Your task to perform on an android device: Open battery settings Image 0: 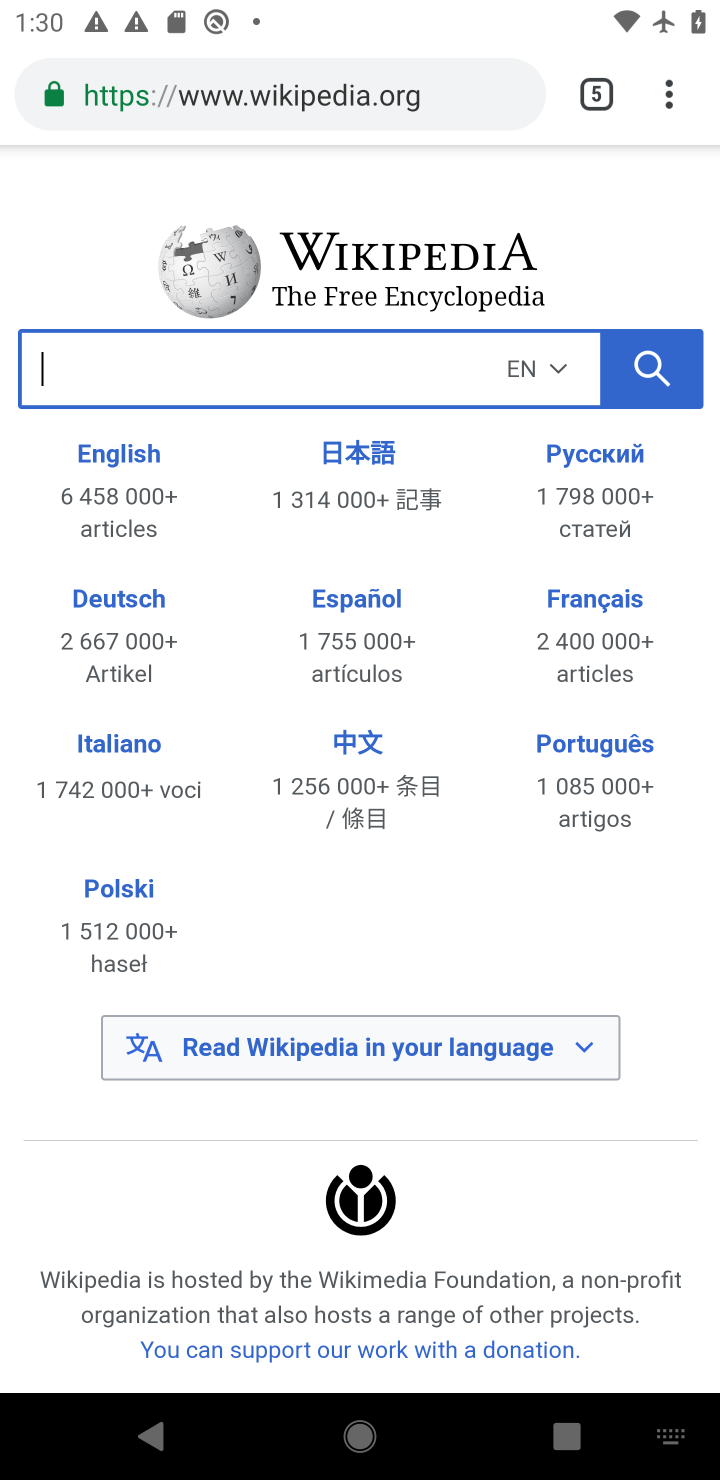
Step 0: press home button
Your task to perform on an android device: Open battery settings Image 1: 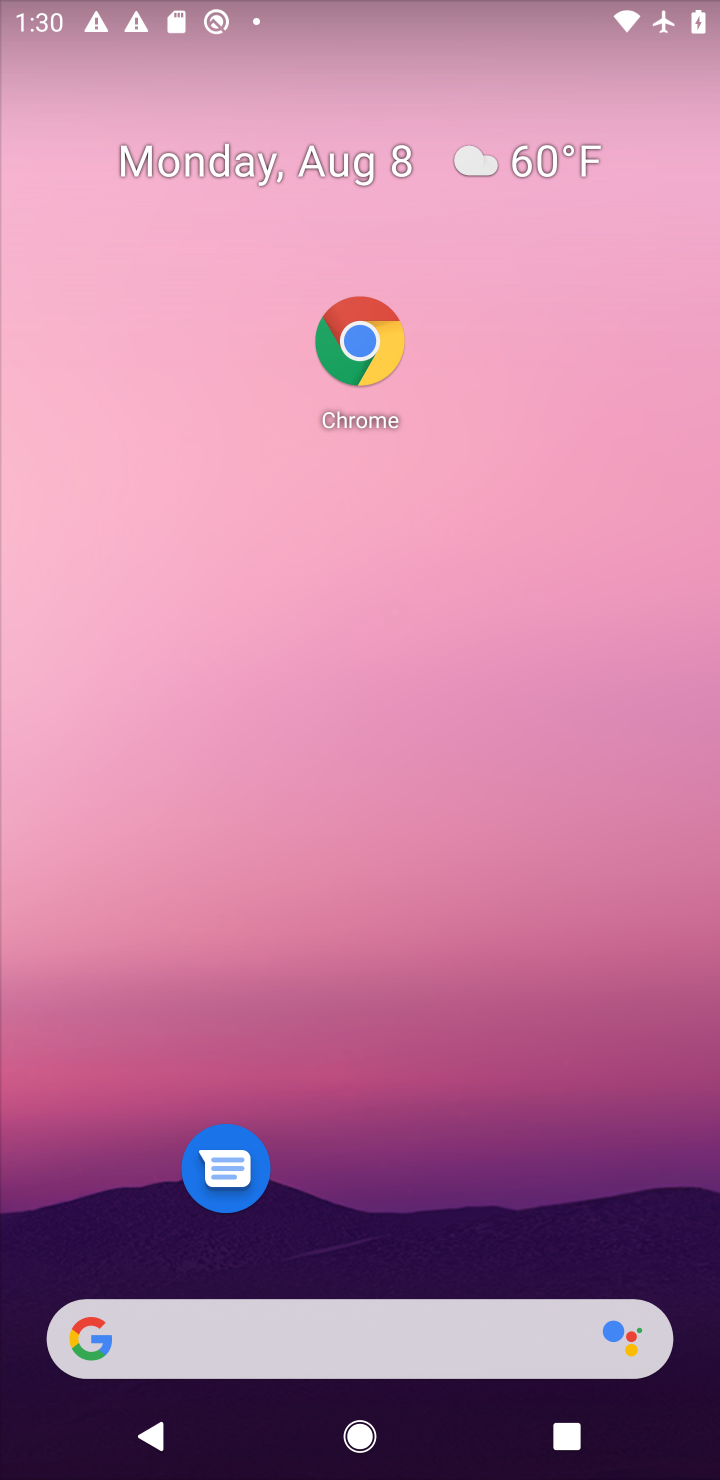
Step 1: drag from (481, 1273) to (510, 205)
Your task to perform on an android device: Open battery settings Image 2: 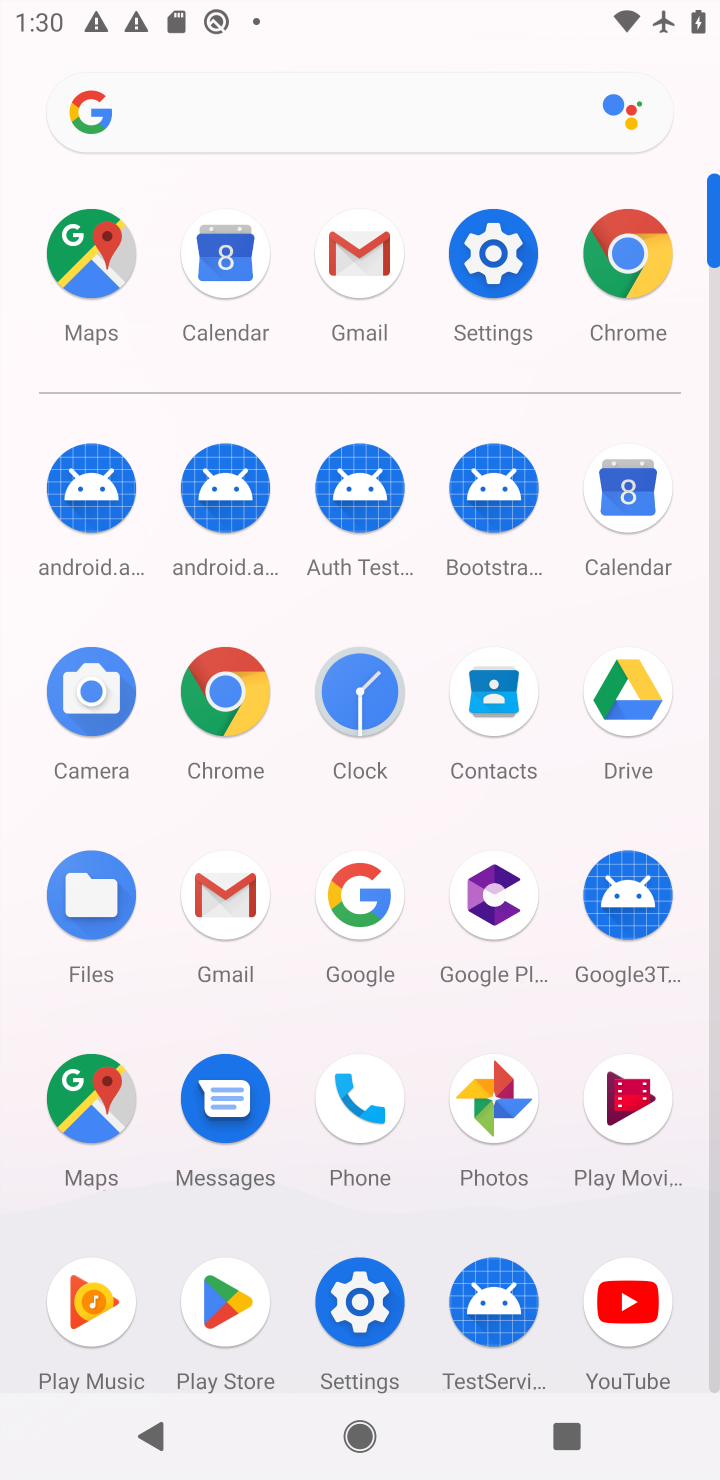
Step 2: click (466, 260)
Your task to perform on an android device: Open battery settings Image 3: 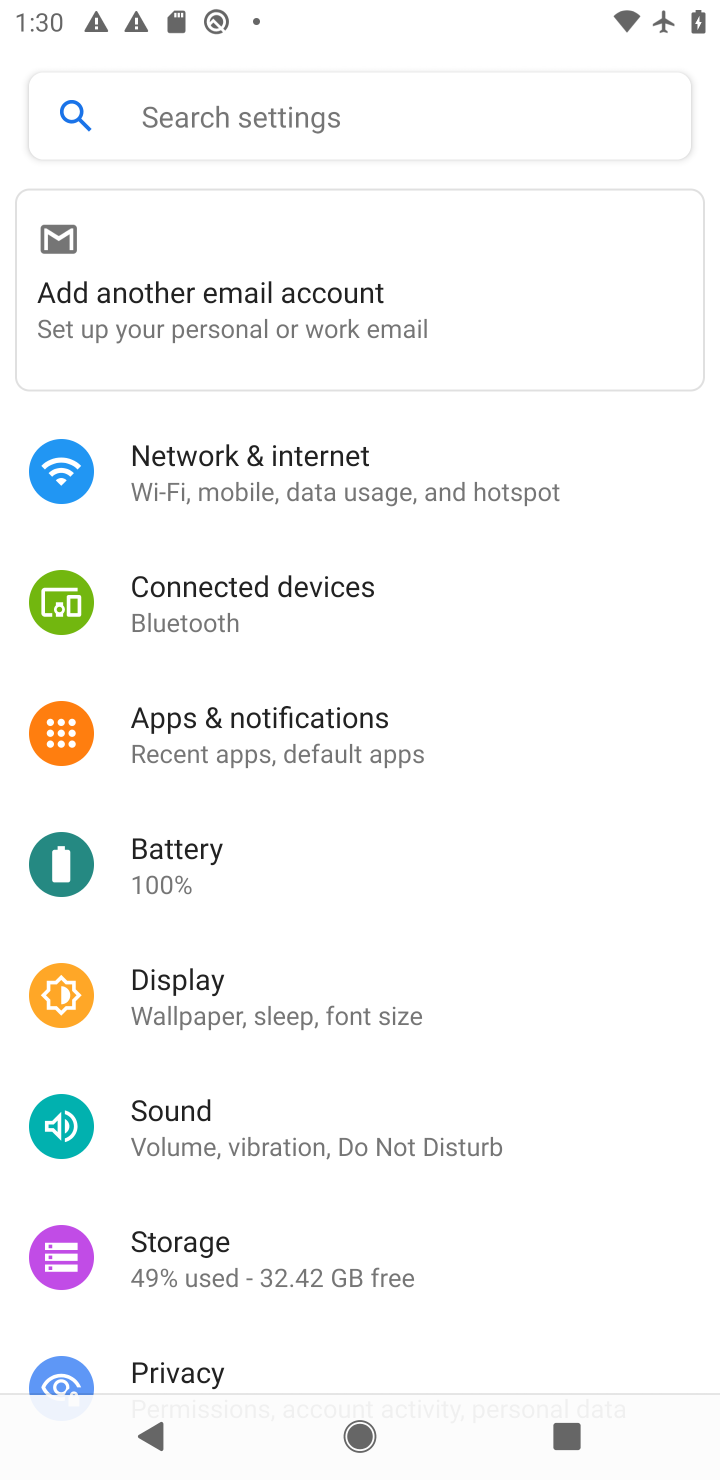
Step 3: click (345, 846)
Your task to perform on an android device: Open battery settings Image 4: 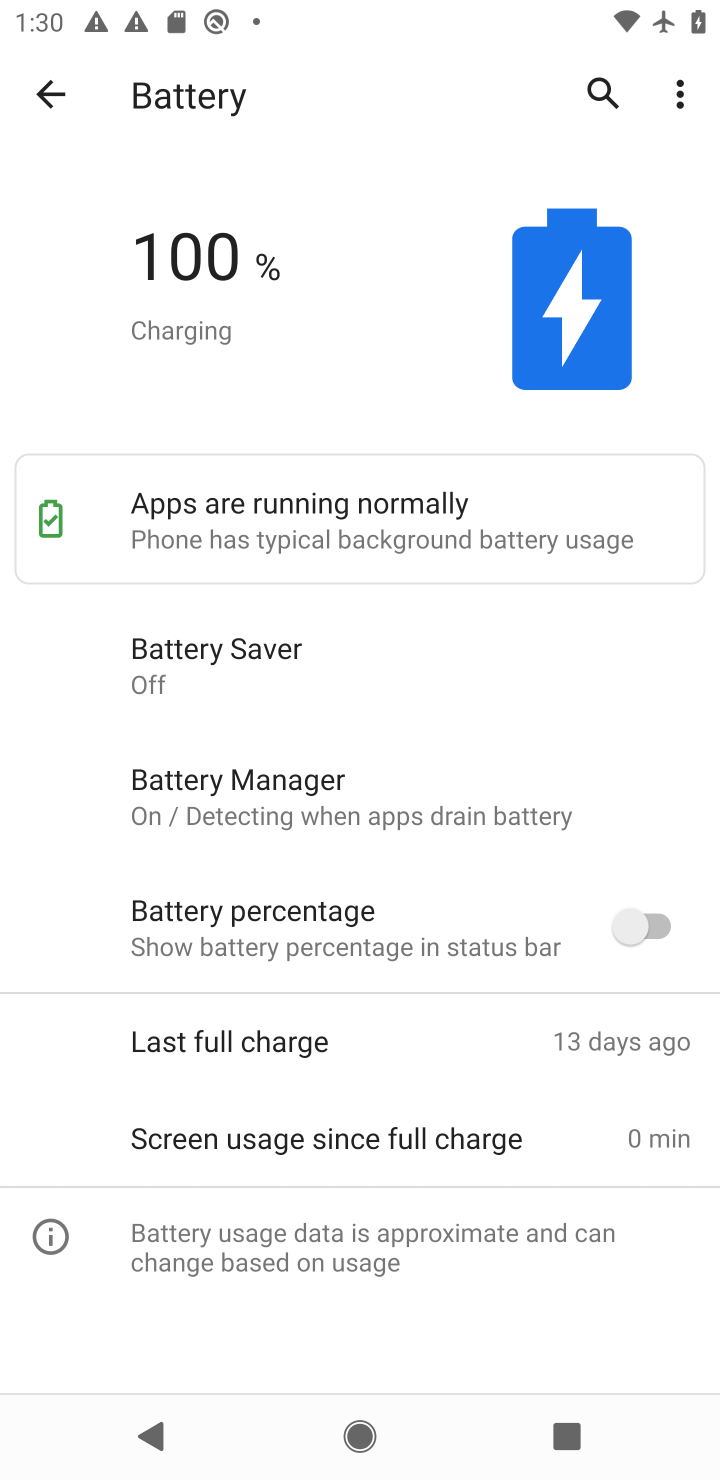
Step 4: task complete